Your task to perform on an android device: Open Maps and search for coffee Image 0: 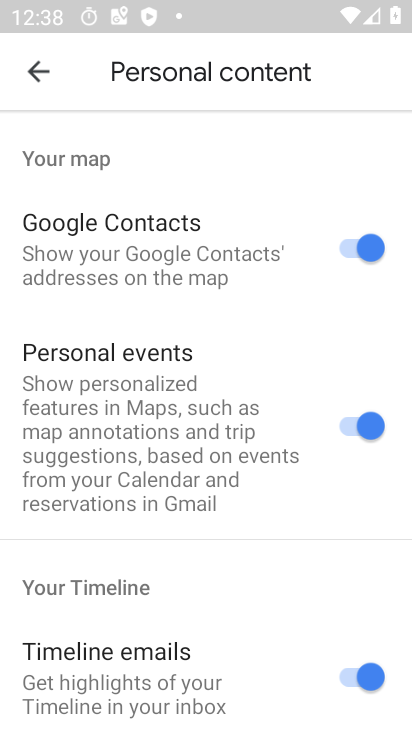
Step 0: press home button
Your task to perform on an android device: Open Maps and search for coffee Image 1: 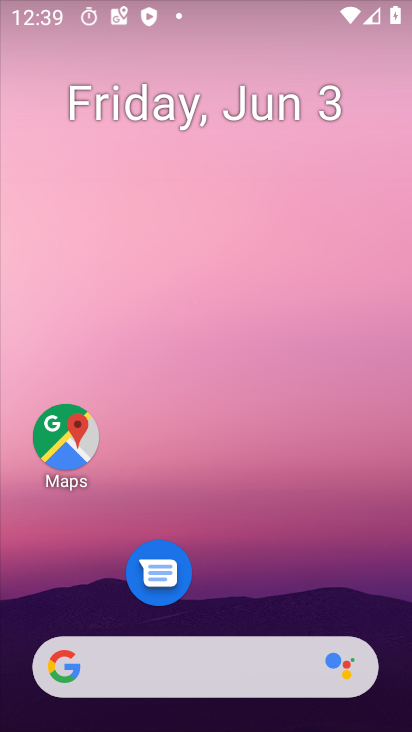
Step 1: drag from (299, 691) to (243, 130)
Your task to perform on an android device: Open Maps and search for coffee Image 2: 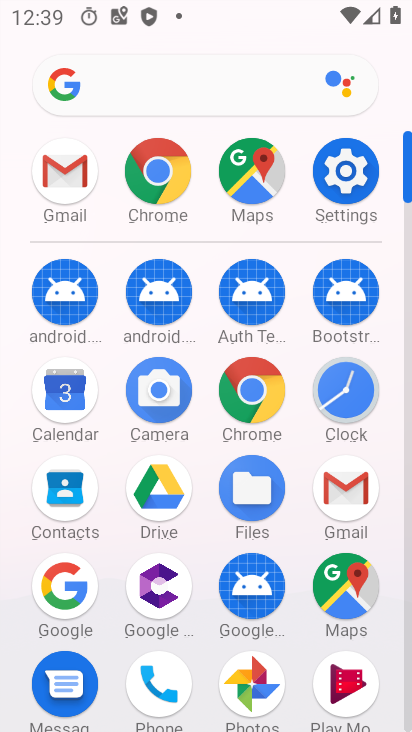
Step 2: click (336, 598)
Your task to perform on an android device: Open Maps and search for coffee Image 3: 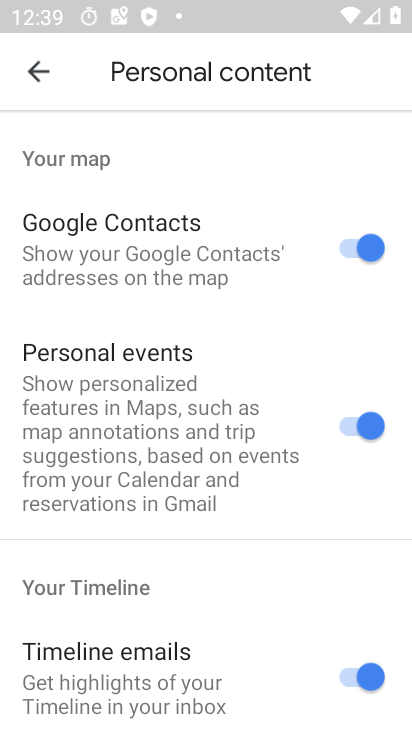
Step 3: press back button
Your task to perform on an android device: Open Maps and search for coffee Image 4: 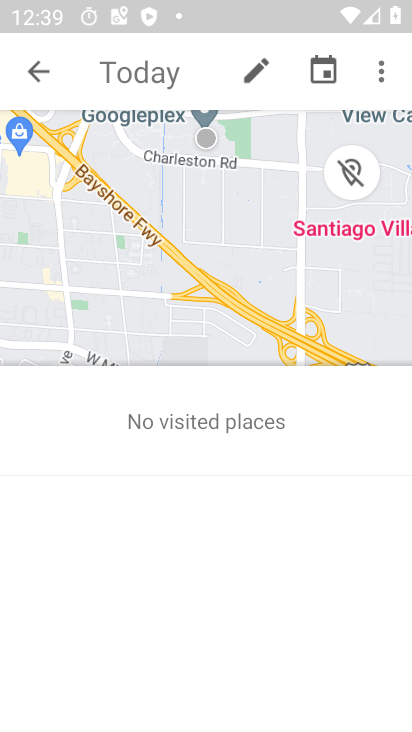
Step 4: press back button
Your task to perform on an android device: Open Maps and search for coffee Image 5: 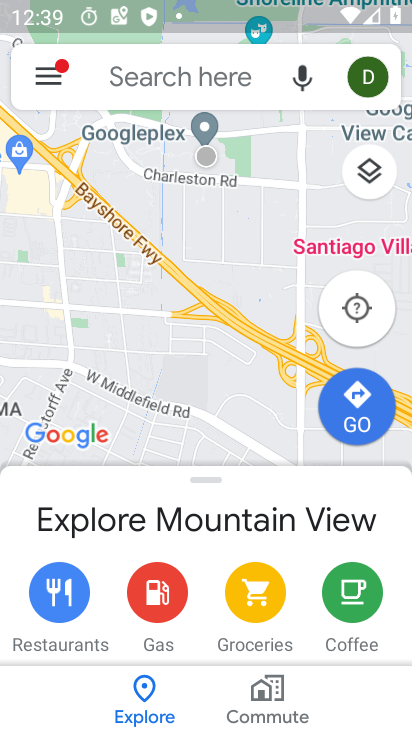
Step 5: click (159, 89)
Your task to perform on an android device: Open Maps and search for coffee Image 6: 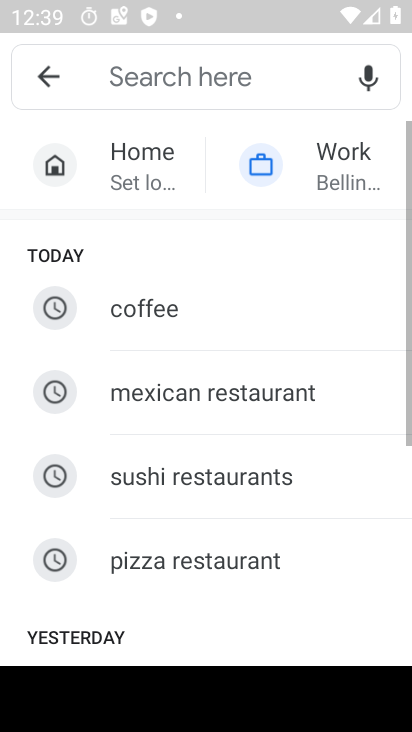
Step 6: click (204, 323)
Your task to perform on an android device: Open Maps and search for coffee Image 7: 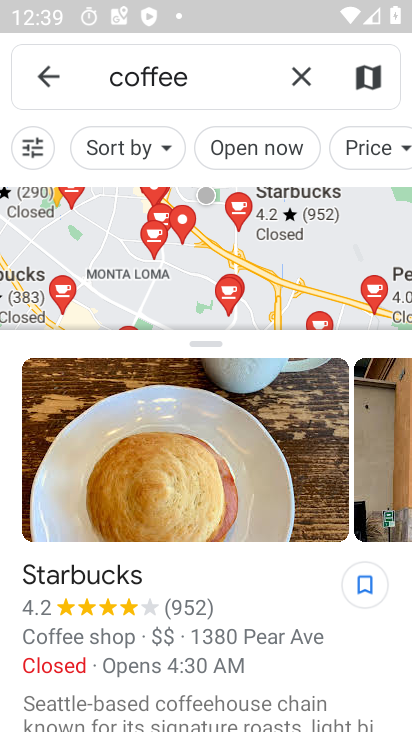
Step 7: task complete